Your task to perform on an android device: Search for Mexican restaurants on Maps Image 0: 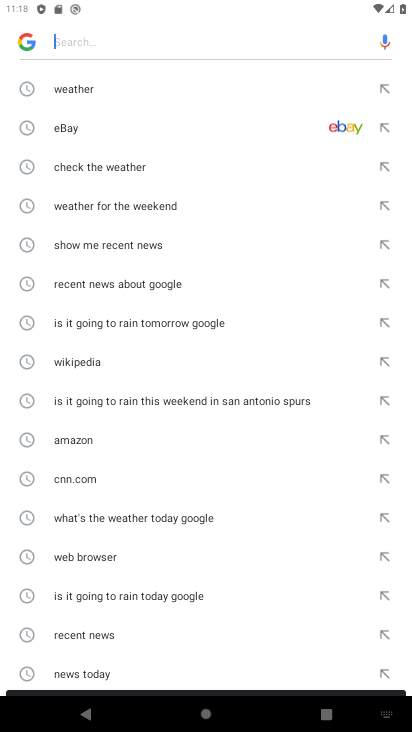
Step 0: press home button
Your task to perform on an android device: Search for Mexican restaurants on Maps Image 1: 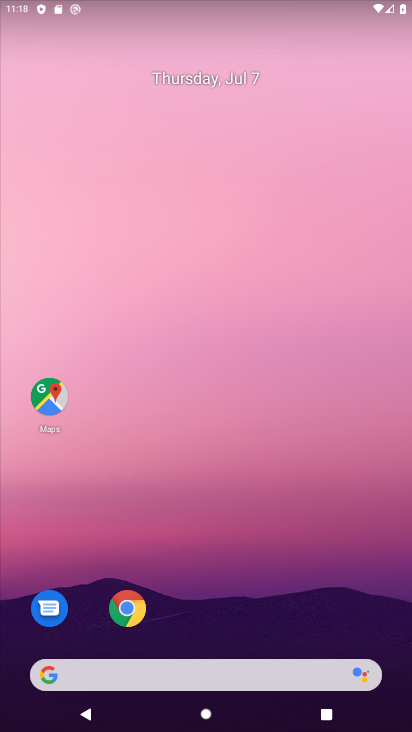
Step 1: click (36, 390)
Your task to perform on an android device: Search for Mexican restaurants on Maps Image 2: 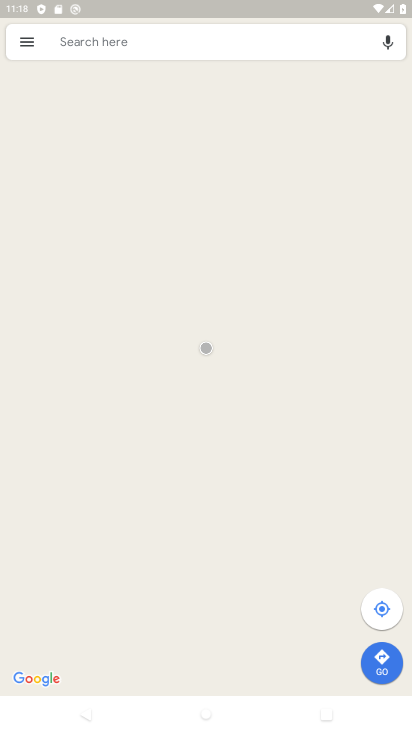
Step 2: drag from (343, 730) to (286, 527)
Your task to perform on an android device: Search for Mexican restaurants on Maps Image 3: 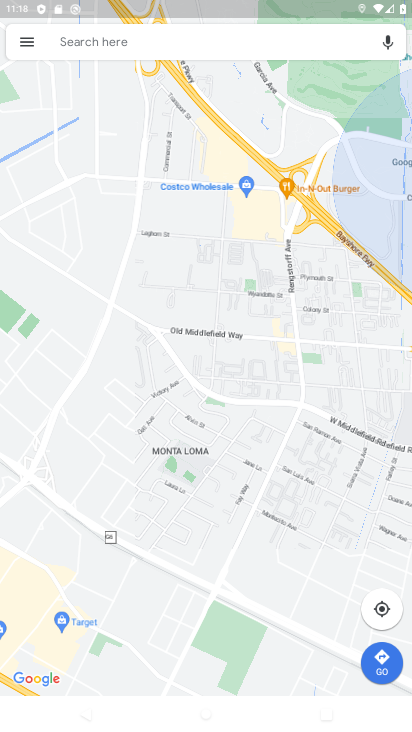
Step 3: click (208, 33)
Your task to perform on an android device: Search for Mexican restaurants on Maps Image 4: 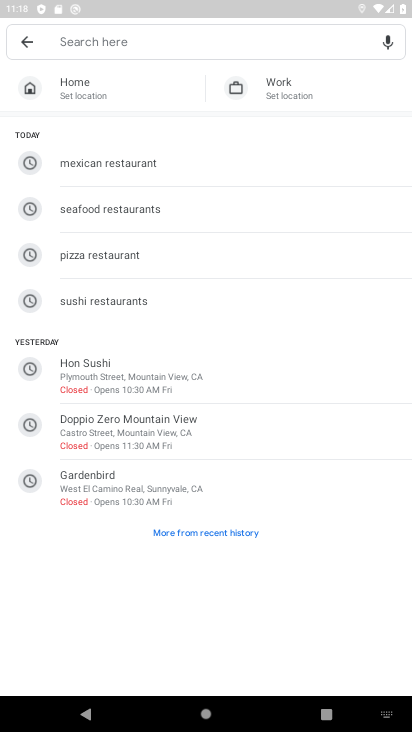
Step 4: type "Mexican restaurants"
Your task to perform on an android device: Search for Mexican restaurants on Maps Image 5: 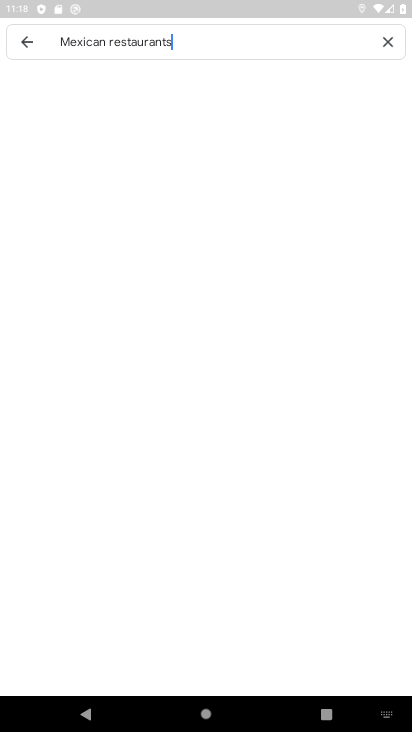
Step 5: type ""
Your task to perform on an android device: Search for Mexican restaurants on Maps Image 6: 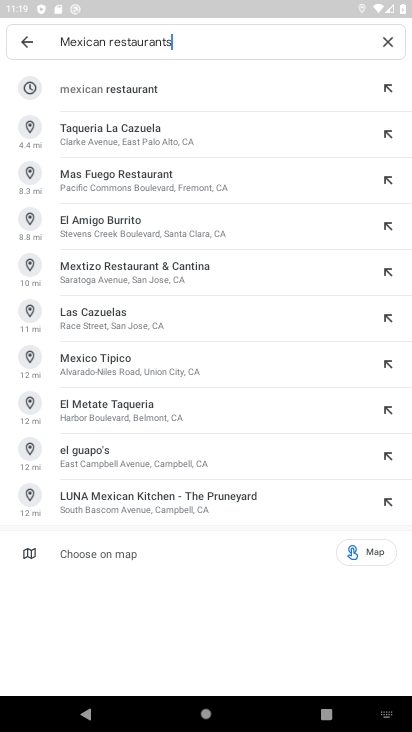
Step 6: click (238, 90)
Your task to perform on an android device: Search for Mexican restaurants on Maps Image 7: 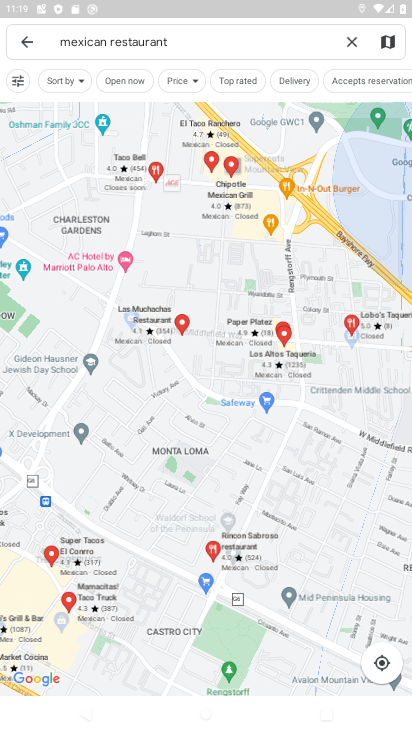
Step 7: task complete